Your task to perform on an android device: Show me the best rated vacuum on Walmart. Image 0: 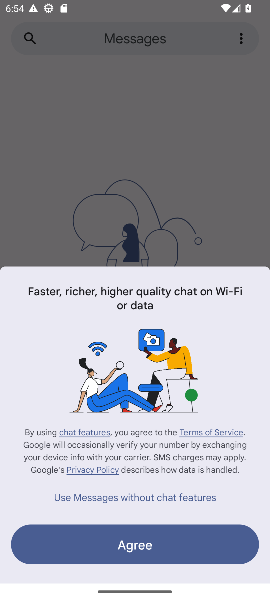
Step 0: press home button
Your task to perform on an android device: Show me the best rated vacuum on Walmart. Image 1: 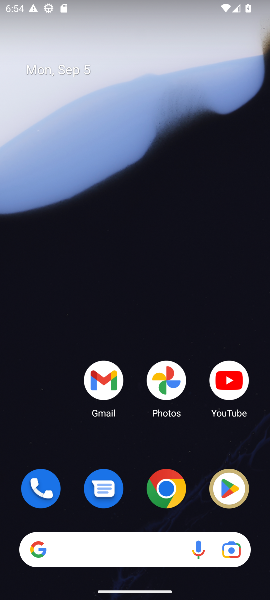
Step 1: click (169, 489)
Your task to perform on an android device: Show me the best rated vacuum on Walmart. Image 2: 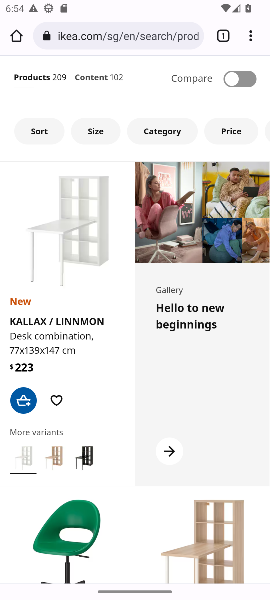
Step 2: click (131, 34)
Your task to perform on an android device: Show me the best rated vacuum on Walmart. Image 3: 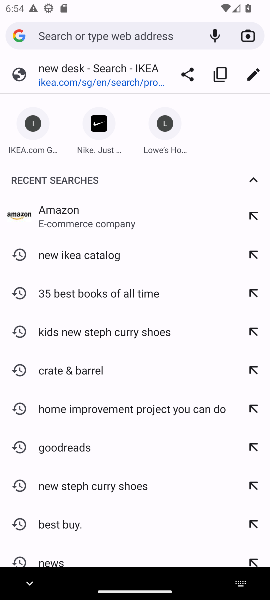
Step 3: press enter
Your task to perform on an android device: Show me the best rated vacuum on Walmart. Image 4: 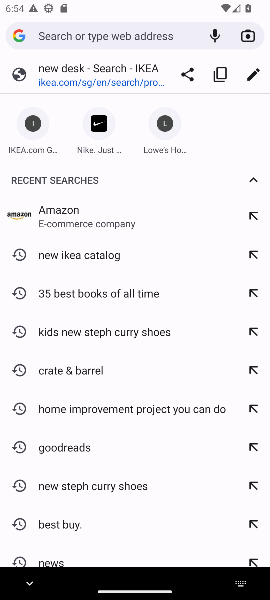
Step 4: type "walmart"
Your task to perform on an android device: Show me the best rated vacuum on Walmart. Image 5: 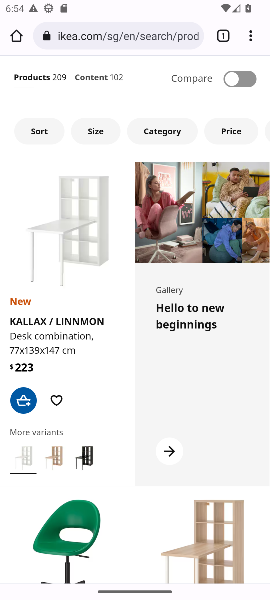
Step 5: click (83, 30)
Your task to perform on an android device: Show me the best rated vacuum on Walmart. Image 6: 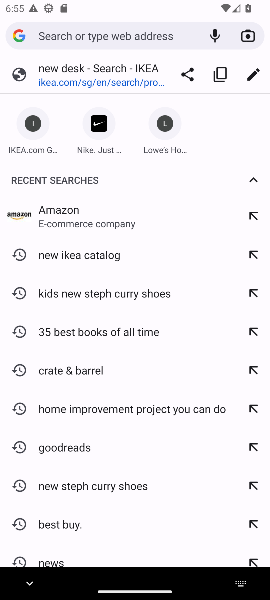
Step 6: type "walmart"
Your task to perform on an android device: Show me the best rated vacuum on Walmart. Image 7: 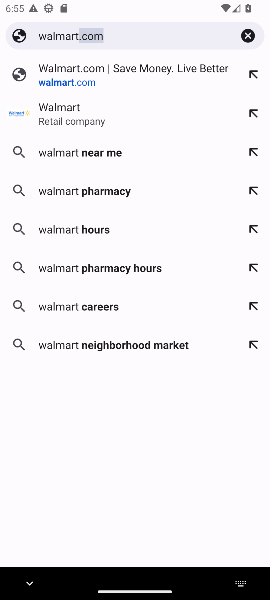
Step 7: press enter
Your task to perform on an android device: Show me the best rated vacuum on Walmart. Image 8: 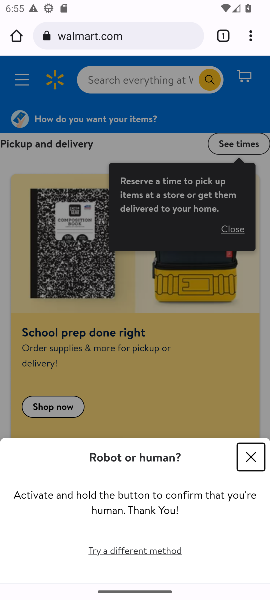
Step 8: click (100, 74)
Your task to perform on an android device: Show me the best rated vacuum on Walmart. Image 9: 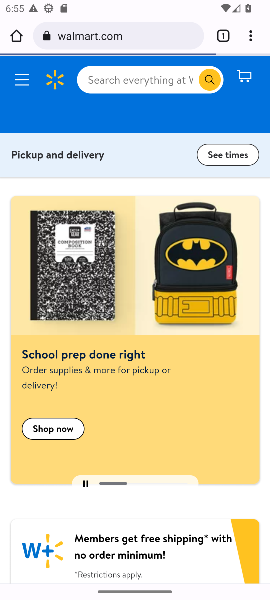
Step 9: click (141, 76)
Your task to perform on an android device: Show me the best rated vacuum on Walmart. Image 10: 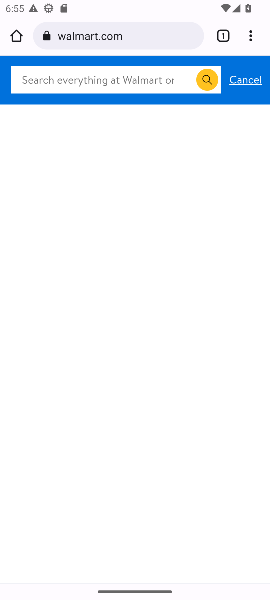
Step 10: click (62, 84)
Your task to perform on an android device: Show me the best rated vacuum on Walmart. Image 11: 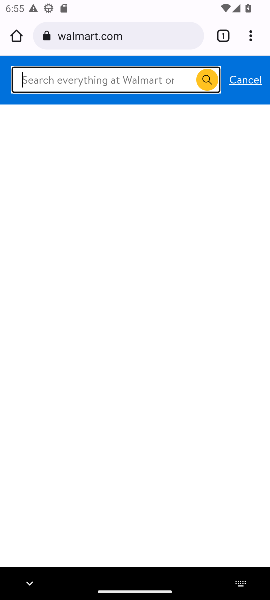
Step 11: type "best rated vaccum"
Your task to perform on an android device: Show me the best rated vacuum on Walmart. Image 12: 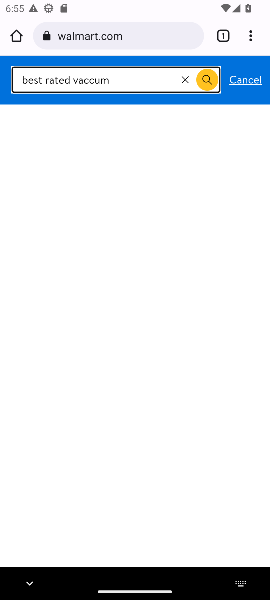
Step 12: press enter
Your task to perform on an android device: Show me the best rated vacuum on Walmart. Image 13: 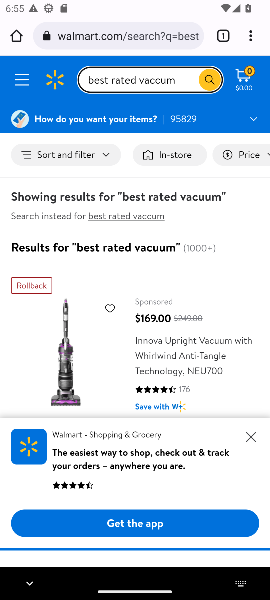
Step 13: click (250, 434)
Your task to perform on an android device: Show me the best rated vacuum on Walmart. Image 14: 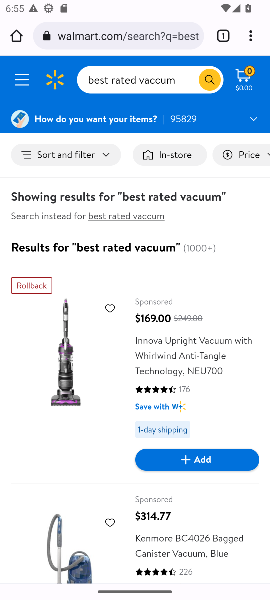
Step 14: click (62, 157)
Your task to perform on an android device: Show me the best rated vacuum on Walmart. Image 15: 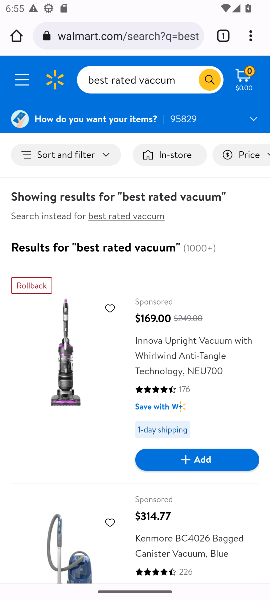
Step 15: click (62, 157)
Your task to perform on an android device: Show me the best rated vacuum on Walmart. Image 16: 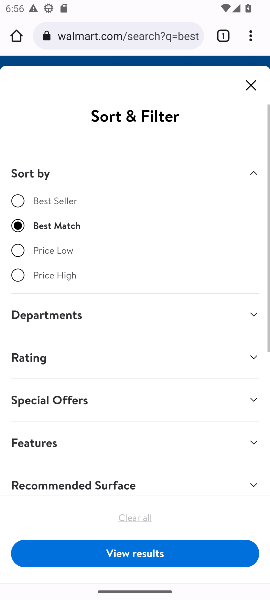
Step 16: click (85, 370)
Your task to perform on an android device: Show me the best rated vacuum on Walmart. Image 17: 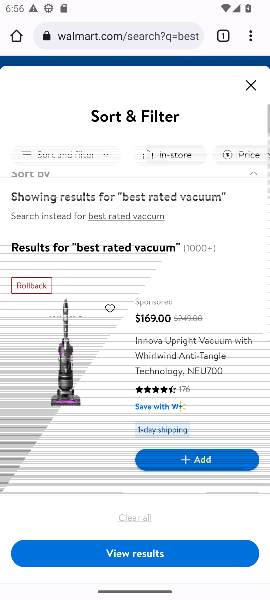
Step 17: drag from (152, 343) to (131, 204)
Your task to perform on an android device: Show me the best rated vacuum on Walmart. Image 18: 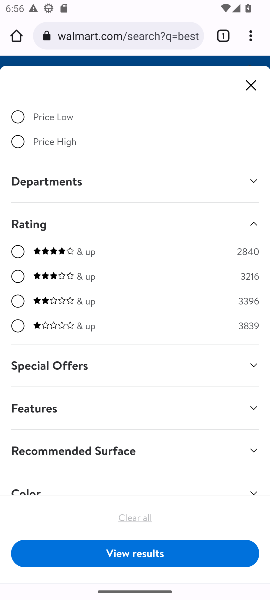
Step 18: click (56, 249)
Your task to perform on an android device: Show me the best rated vacuum on Walmart. Image 19: 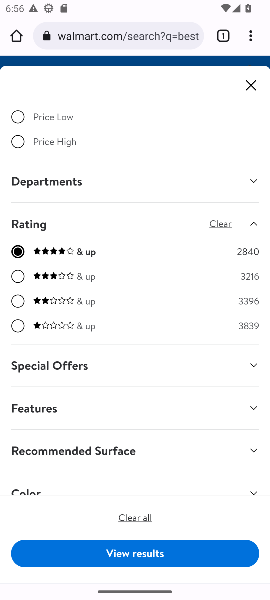
Step 19: click (199, 551)
Your task to perform on an android device: Show me the best rated vacuum on Walmart. Image 20: 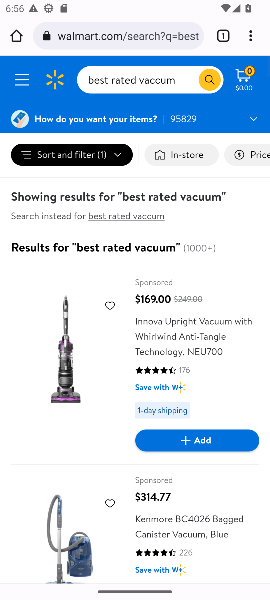
Step 20: click (173, 287)
Your task to perform on an android device: Show me the best rated vacuum on Walmart. Image 21: 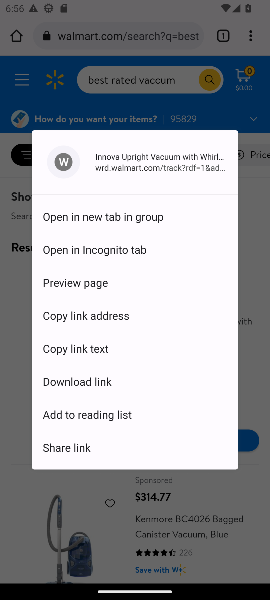
Step 21: click (266, 312)
Your task to perform on an android device: Show me the best rated vacuum on Walmart. Image 22: 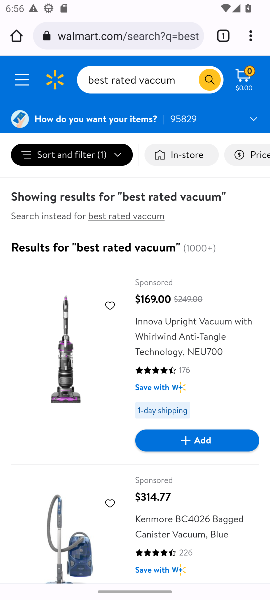
Step 22: drag from (215, 350) to (218, 462)
Your task to perform on an android device: Show me the best rated vacuum on Walmart. Image 23: 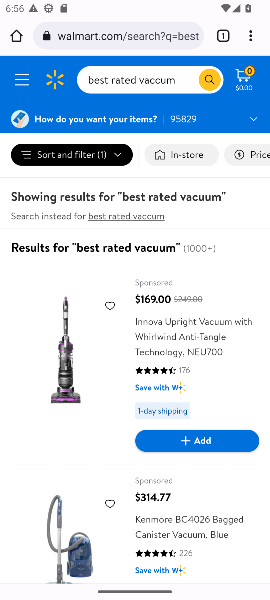
Step 23: drag from (172, 347) to (169, 444)
Your task to perform on an android device: Show me the best rated vacuum on Walmart. Image 24: 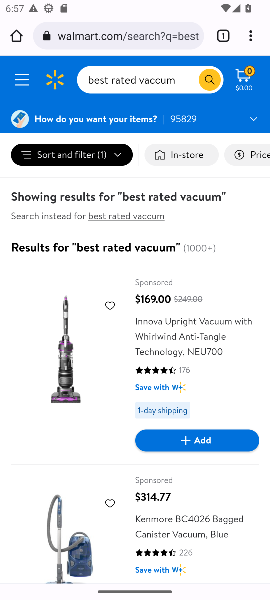
Step 24: click (127, 449)
Your task to perform on an android device: Show me the best rated vacuum on Walmart. Image 25: 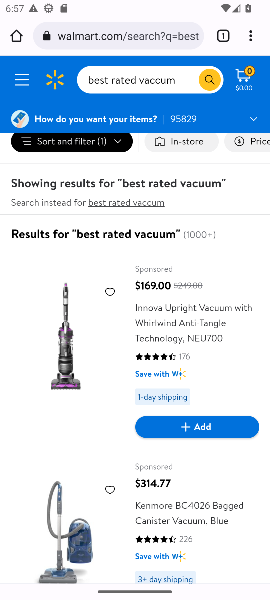
Step 25: task complete